Your task to perform on an android device: Turn off the flashlight Image 0: 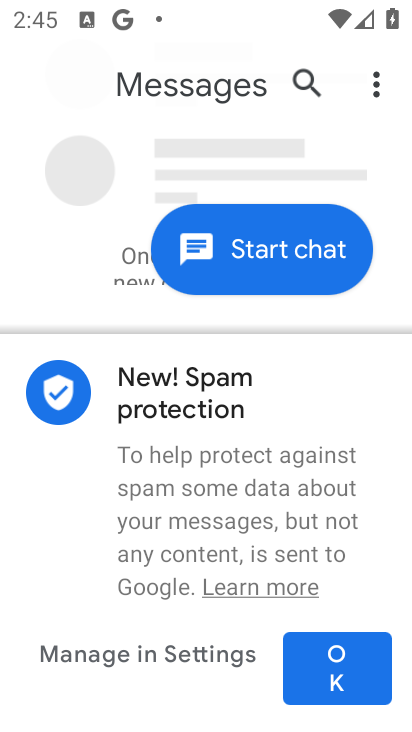
Step 0: press home button
Your task to perform on an android device: Turn off the flashlight Image 1: 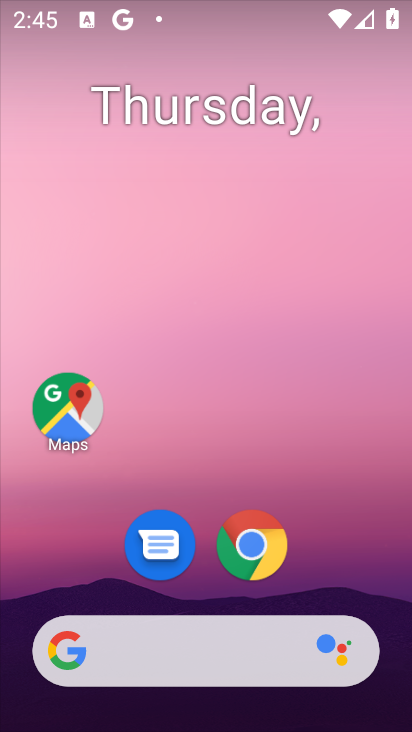
Step 1: task complete